Your task to perform on an android device: Is it going to rain this weekend? Image 0: 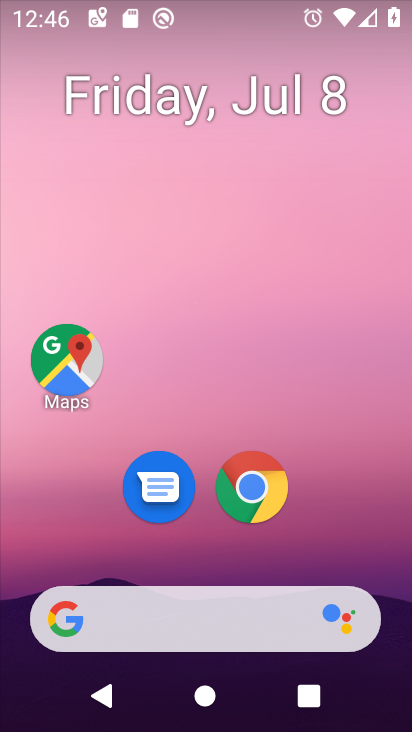
Step 0: click (279, 600)
Your task to perform on an android device: Is it going to rain this weekend? Image 1: 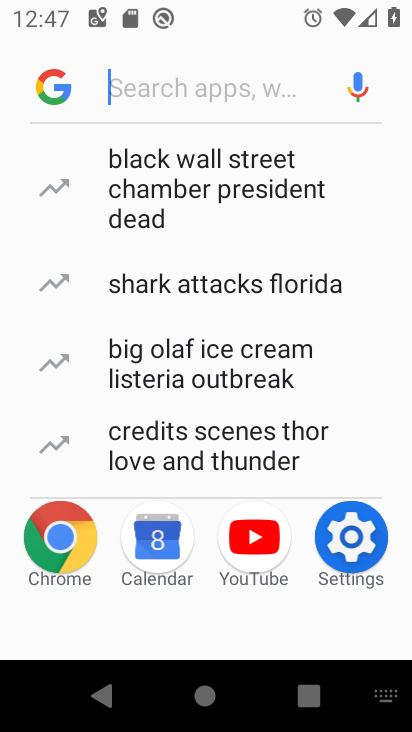
Step 1: type "weather"
Your task to perform on an android device: Is it going to rain this weekend? Image 2: 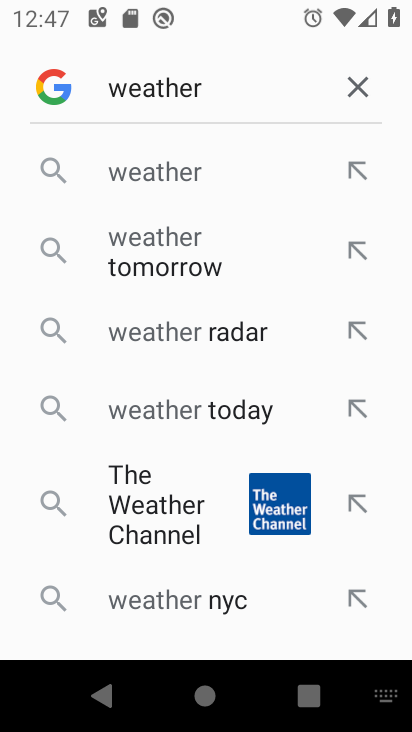
Step 2: click (202, 166)
Your task to perform on an android device: Is it going to rain this weekend? Image 3: 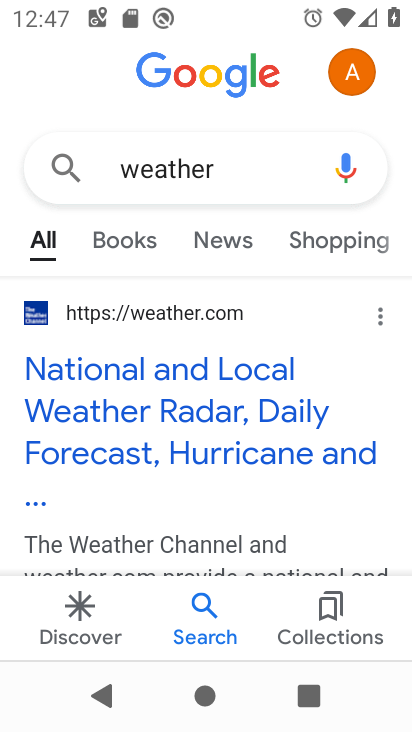
Step 3: drag from (331, 506) to (322, 270)
Your task to perform on an android device: Is it going to rain this weekend? Image 4: 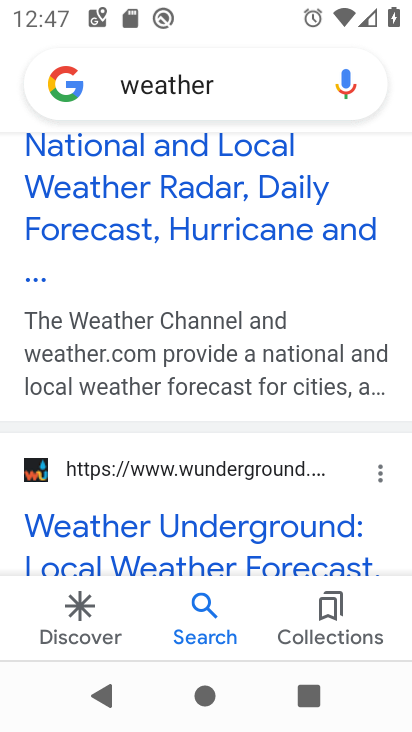
Step 4: drag from (296, 433) to (280, 277)
Your task to perform on an android device: Is it going to rain this weekend? Image 5: 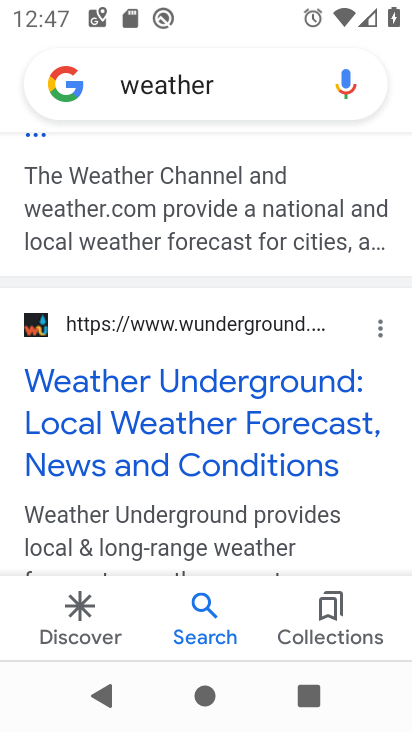
Step 5: click (245, 99)
Your task to perform on an android device: Is it going to rain this weekend? Image 6: 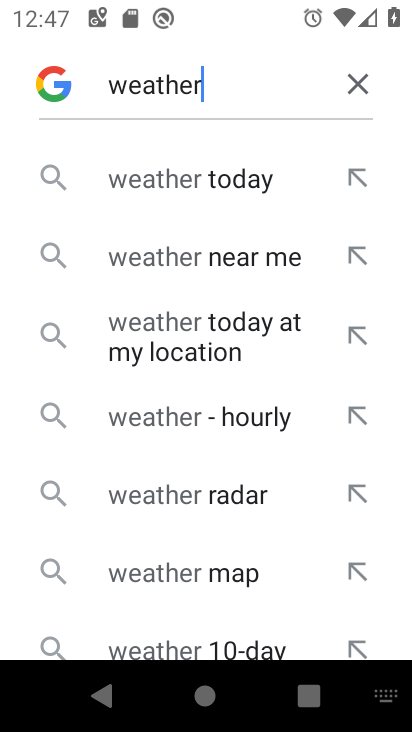
Step 6: click (254, 95)
Your task to perform on an android device: Is it going to rain this weekend? Image 7: 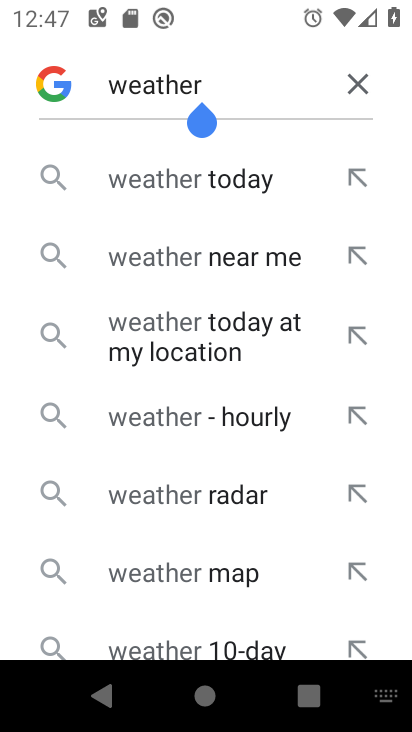
Step 7: type " "
Your task to perform on an android device: Is it going to rain this weekend? Image 8: 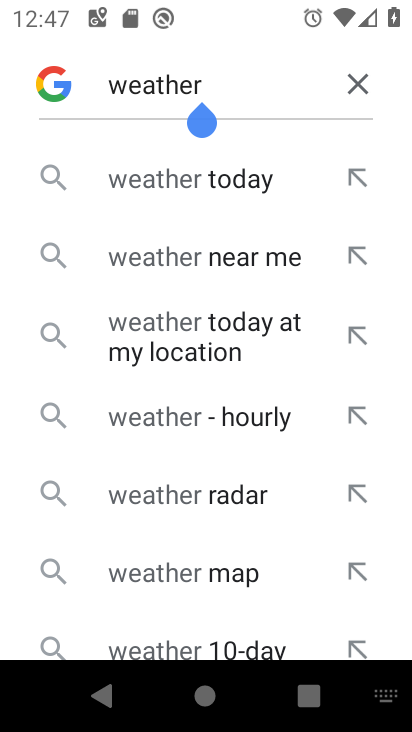
Step 8: click (199, 188)
Your task to perform on an android device: Is it going to rain this weekend? Image 9: 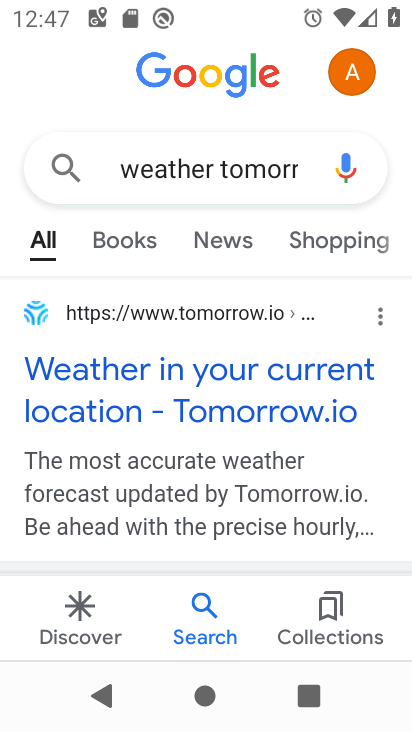
Step 9: task complete